Your task to perform on an android device: Go to privacy settings Image 0: 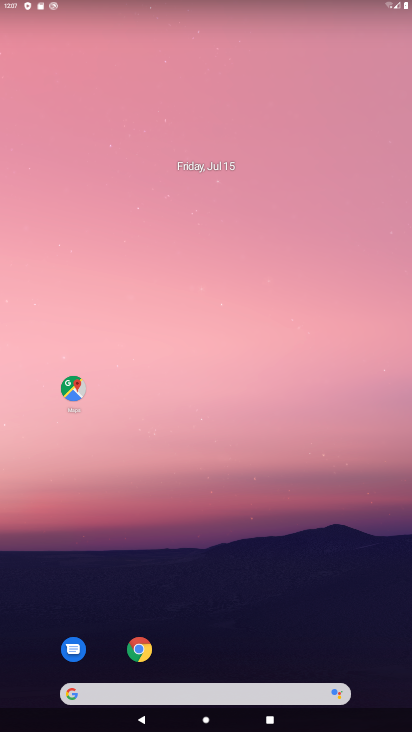
Step 0: drag from (228, 570) to (260, 13)
Your task to perform on an android device: Go to privacy settings Image 1: 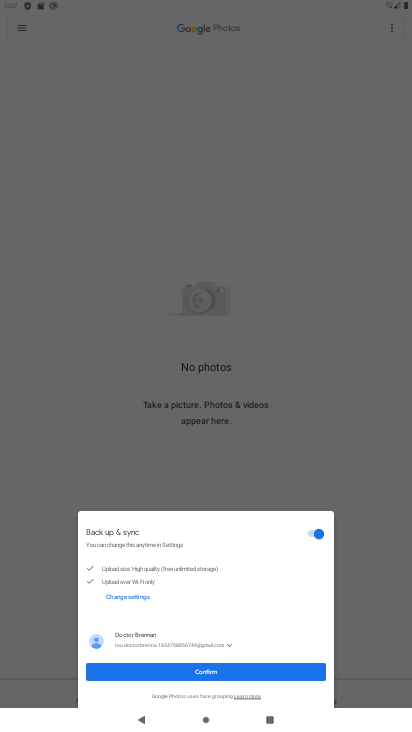
Step 1: press home button
Your task to perform on an android device: Go to privacy settings Image 2: 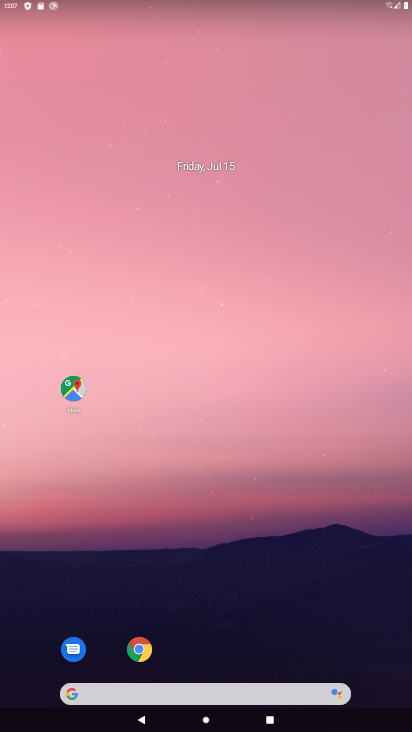
Step 2: drag from (189, 640) to (182, 100)
Your task to perform on an android device: Go to privacy settings Image 3: 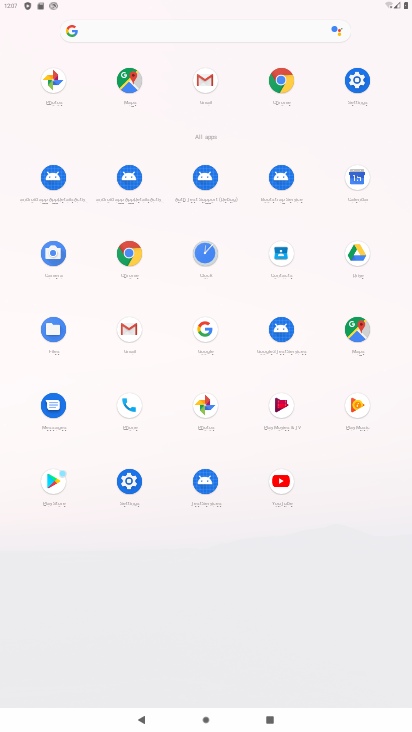
Step 3: click (132, 485)
Your task to perform on an android device: Go to privacy settings Image 4: 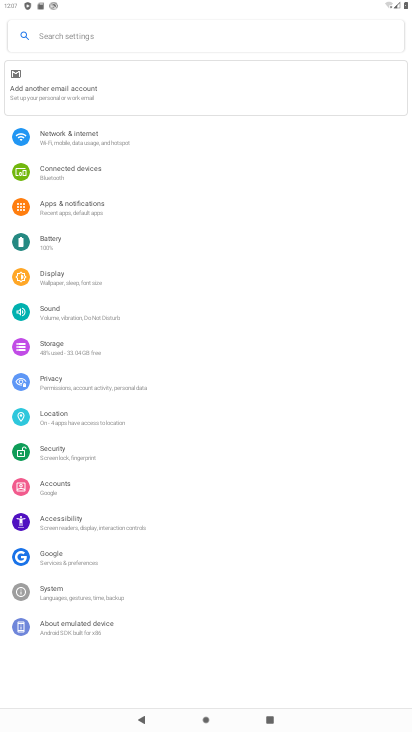
Step 4: click (78, 383)
Your task to perform on an android device: Go to privacy settings Image 5: 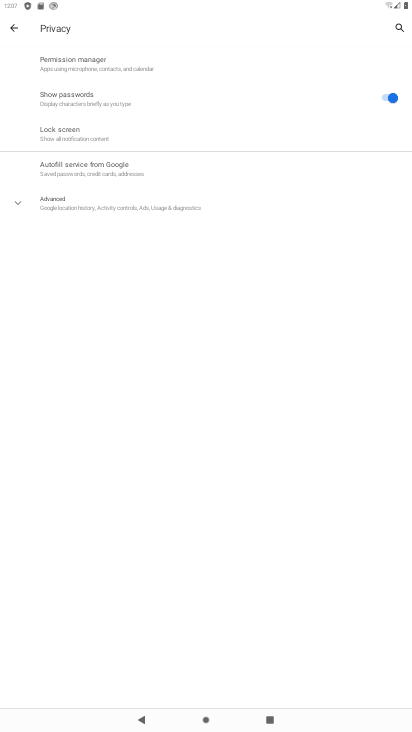
Step 5: task complete